Your task to perform on an android device: Check the news Image 0: 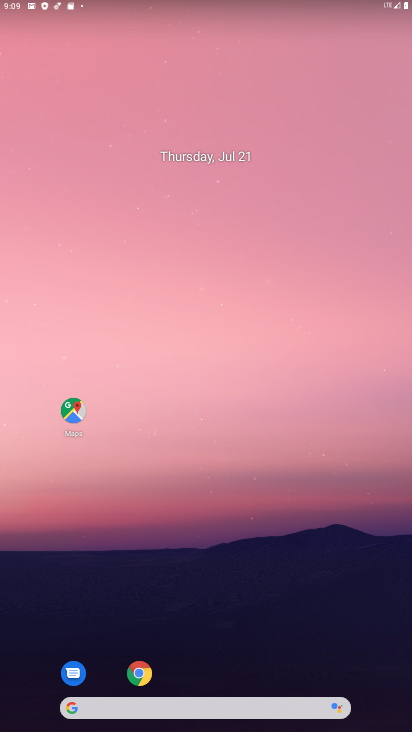
Step 0: drag from (203, 602) to (305, 217)
Your task to perform on an android device: Check the news Image 1: 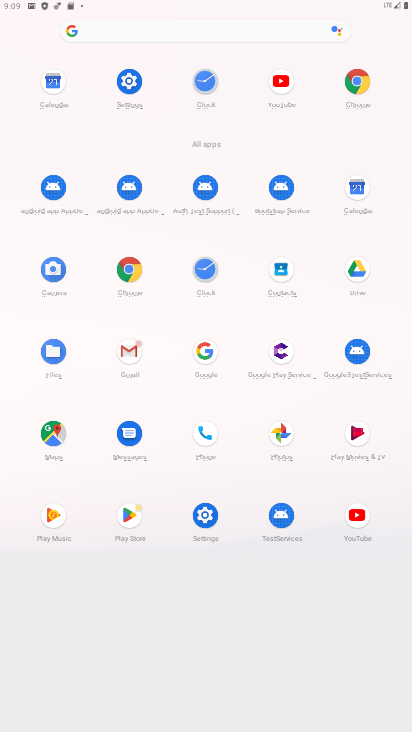
Step 1: click (183, 32)
Your task to perform on an android device: Check the news Image 2: 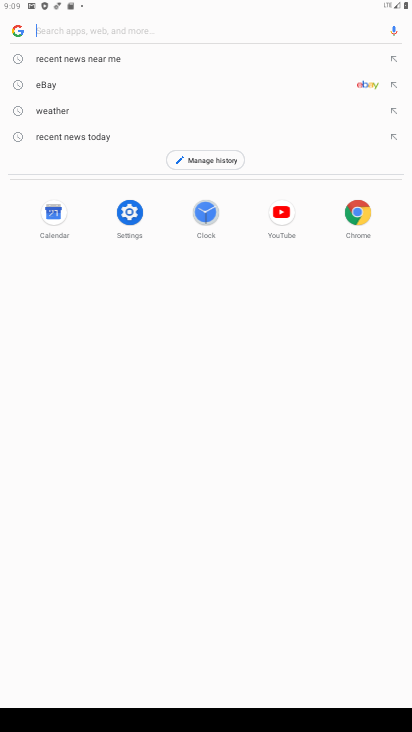
Step 2: type "news"
Your task to perform on an android device: Check the news Image 3: 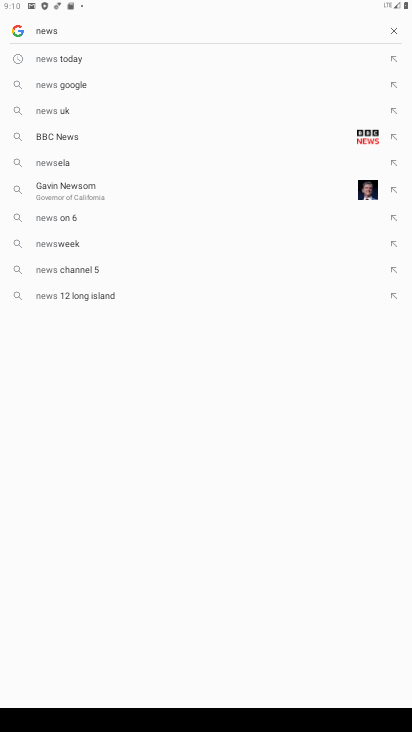
Step 3: click (95, 83)
Your task to perform on an android device: Check the news Image 4: 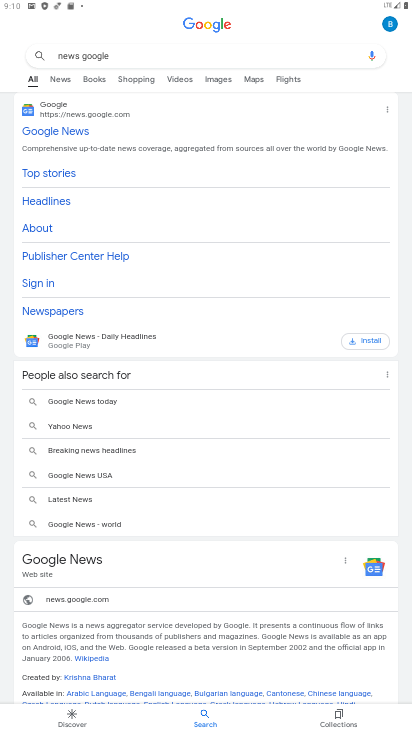
Step 4: click (70, 132)
Your task to perform on an android device: Check the news Image 5: 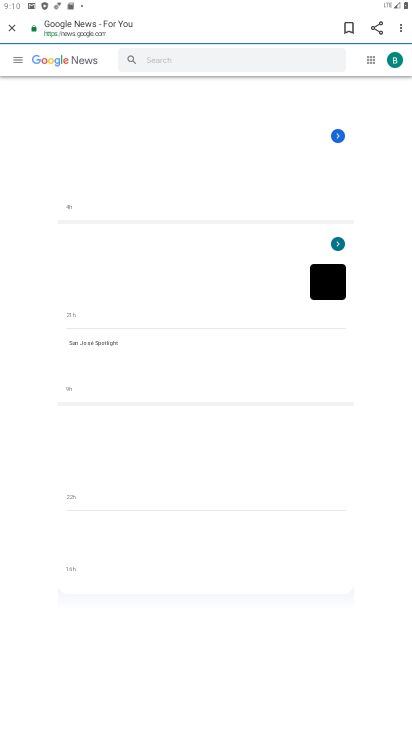
Step 5: task complete